Your task to perform on an android device: turn on showing notifications on the lock screen Image 0: 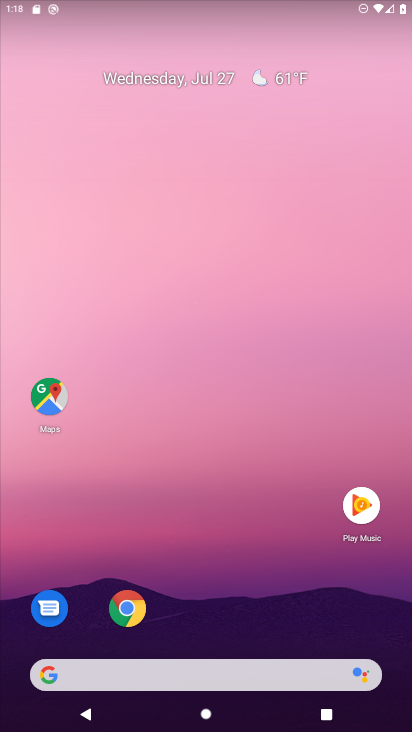
Step 0: press home button
Your task to perform on an android device: turn on showing notifications on the lock screen Image 1: 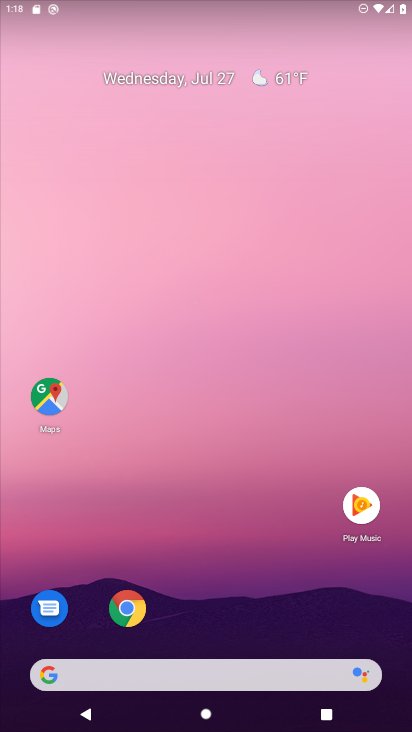
Step 1: drag from (308, 607) to (332, 287)
Your task to perform on an android device: turn on showing notifications on the lock screen Image 2: 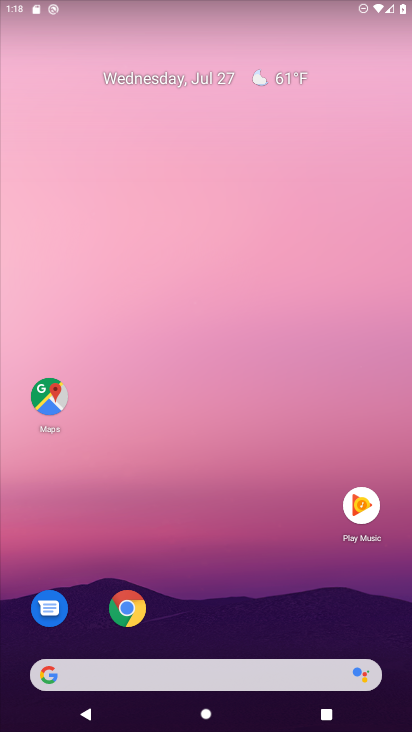
Step 2: drag from (294, 602) to (332, 201)
Your task to perform on an android device: turn on showing notifications on the lock screen Image 3: 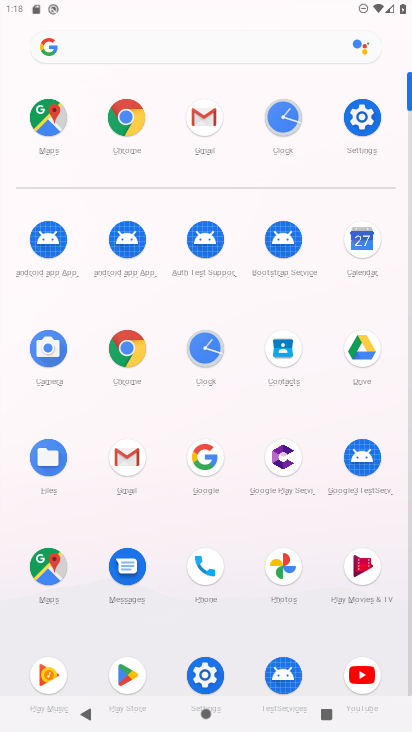
Step 3: click (363, 120)
Your task to perform on an android device: turn on showing notifications on the lock screen Image 4: 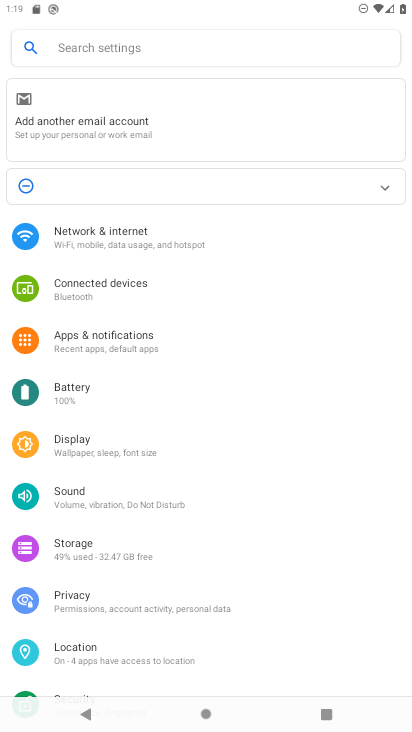
Step 4: drag from (320, 473) to (323, 407)
Your task to perform on an android device: turn on showing notifications on the lock screen Image 5: 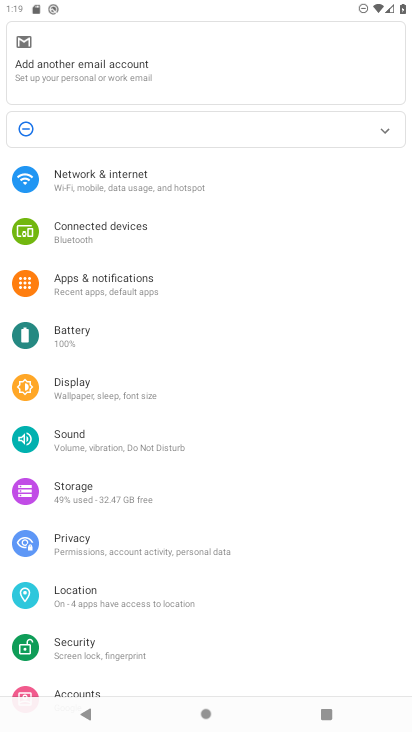
Step 5: drag from (322, 545) to (313, 469)
Your task to perform on an android device: turn on showing notifications on the lock screen Image 6: 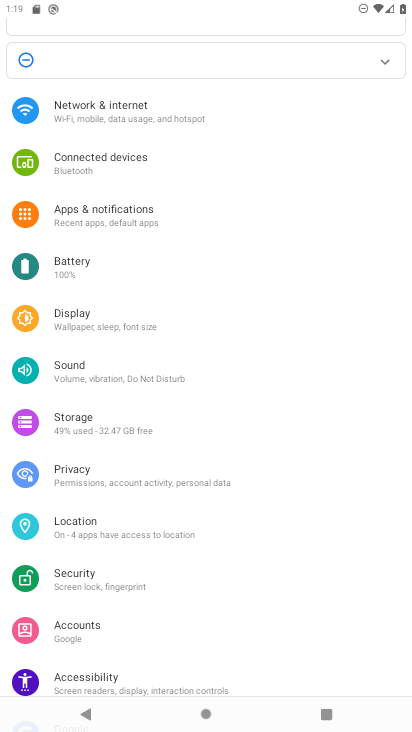
Step 6: drag from (314, 572) to (306, 500)
Your task to perform on an android device: turn on showing notifications on the lock screen Image 7: 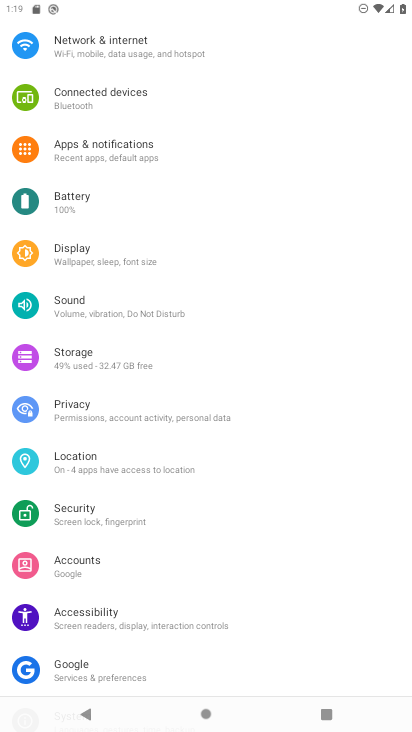
Step 7: drag from (327, 597) to (315, 510)
Your task to perform on an android device: turn on showing notifications on the lock screen Image 8: 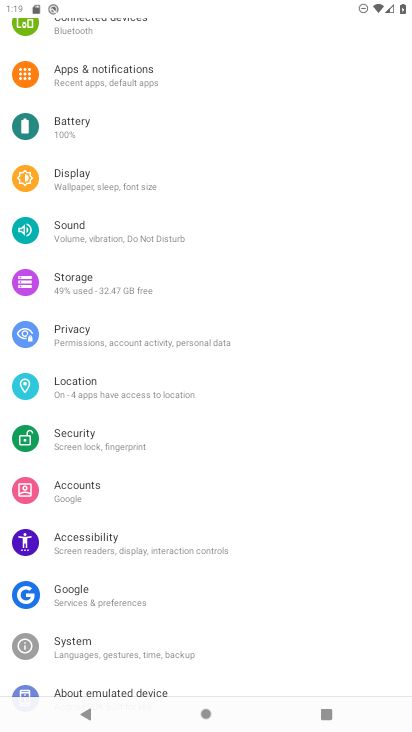
Step 8: drag from (326, 574) to (333, 485)
Your task to perform on an android device: turn on showing notifications on the lock screen Image 9: 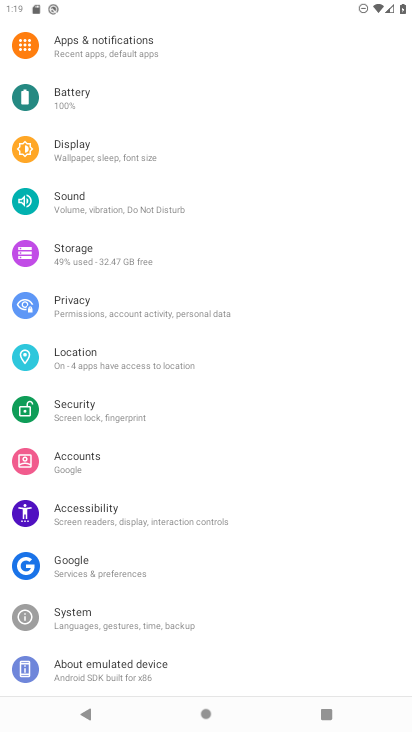
Step 9: drag from (331, 403) to (329, 469)
Your task to perform on an android device: turn on showing notifications on the lock screen Image 10: 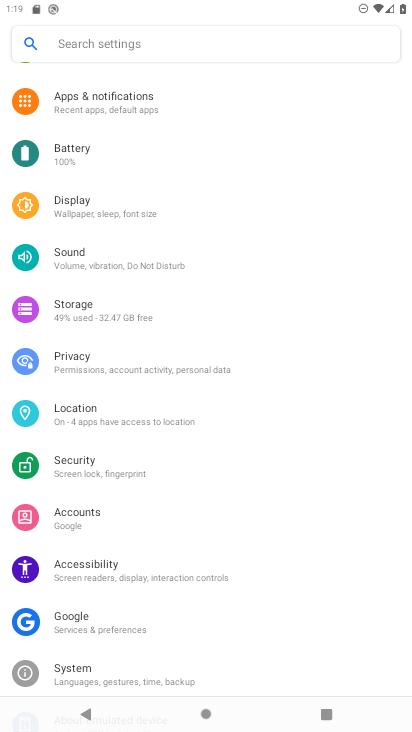
Step 10: drag from (325, 345) to (325, 429)
Your task to perform on an android device: turn on showing notifications on the lock screen Image 11: 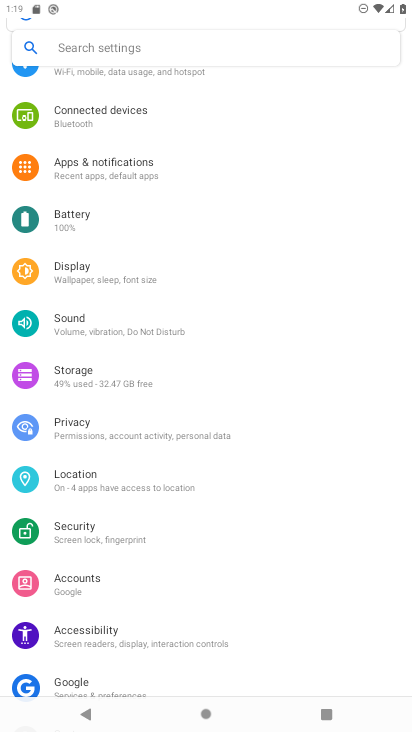
Step 11: drag from (325, 299) to (326, 372)
Your task to perform on an android device: turn on showing notifications on the lock screen Image 12: 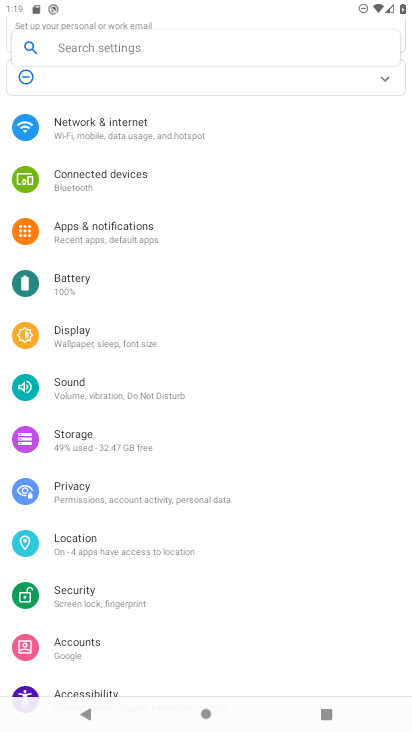
Step 12: drag from (312, 290) to (317, 503)
Your task to perform on an android device: turn on showing notifications on the lock screen Image 13: 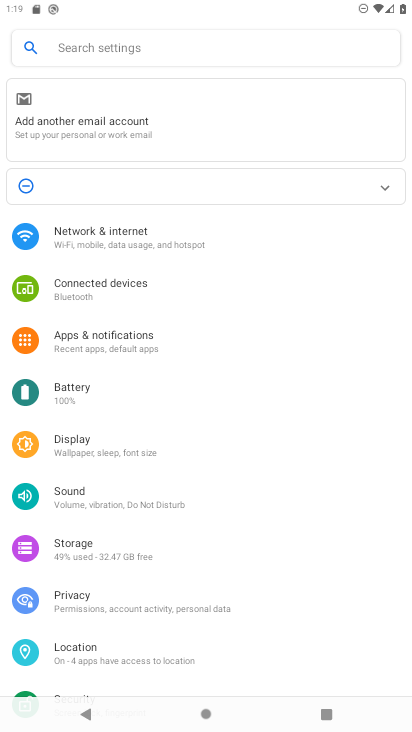
Step 13: click (181, 342)
Your task to perform on an android device: turn on showing notifications on the lock screen Image 14: 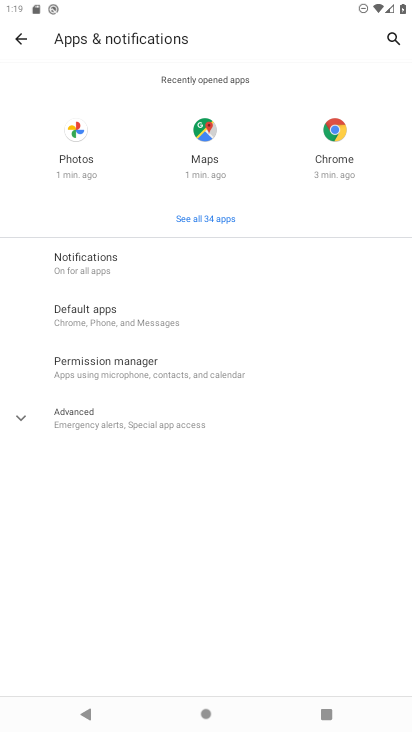
Step 14: click (122, 271)
Your task to perform on an android device: turn on showing notifications on the lock screen Image 15: 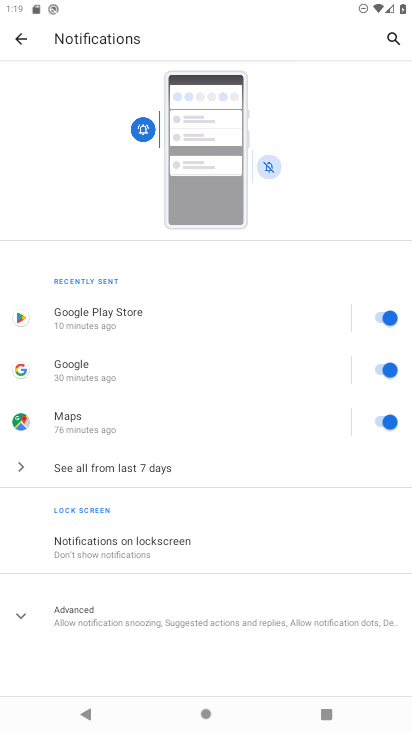
Step 15: click (249, 548)
Your task to perform on an android device: turn on showing notifications on the lock screen Image 16: 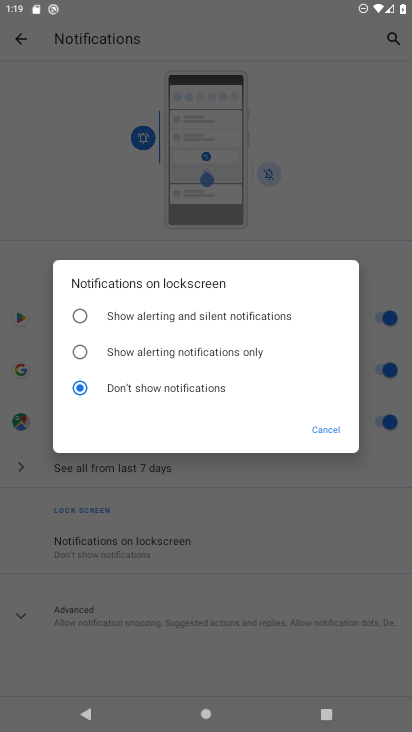
Step 16: click (154, 316)
Your task to perform on an android device: turn on showing notifications on the lock screen Image 17: 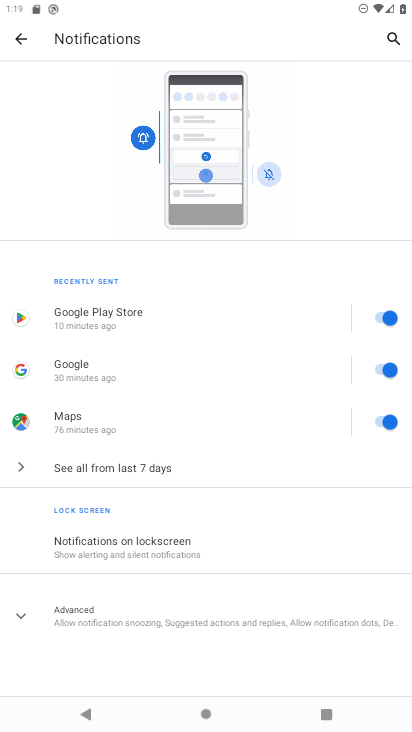
Step 17: task complete